Your task to perform on an android device: Is it going to rain today? Image 0: 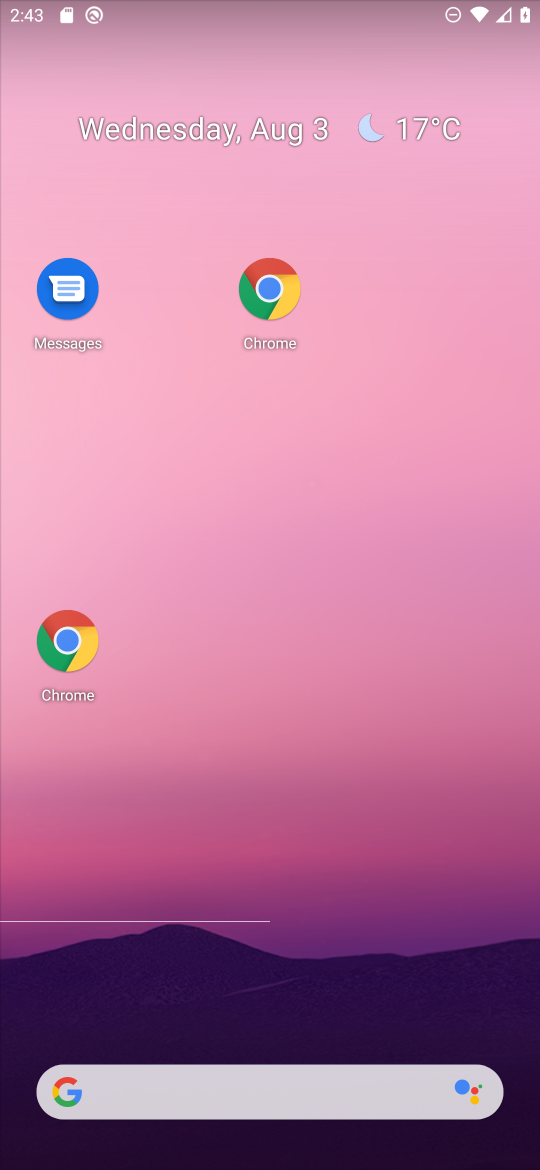
Step 0: drag from (343, 979) to (233, 428)
Your task to perform on an android device: Is it going to rain today? Image 1: 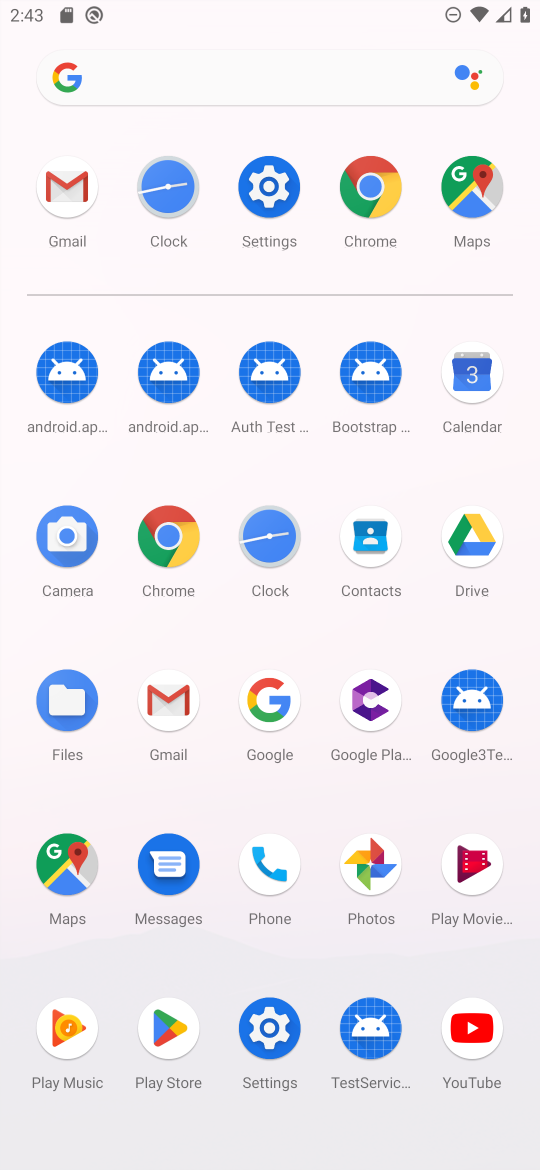
Step 1: click (134, 72)
Your task to perform on an android device: Is it going to rain today? Image 2: 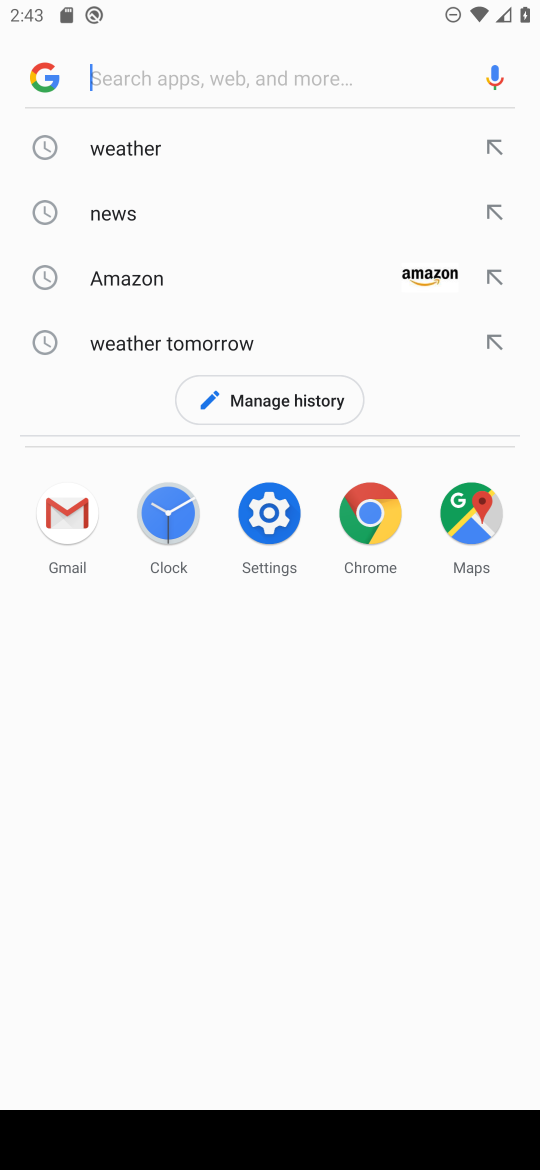
Step 2: click (172, 172)
Your task to perform on an android device: Is it going to rain today? Image 3: 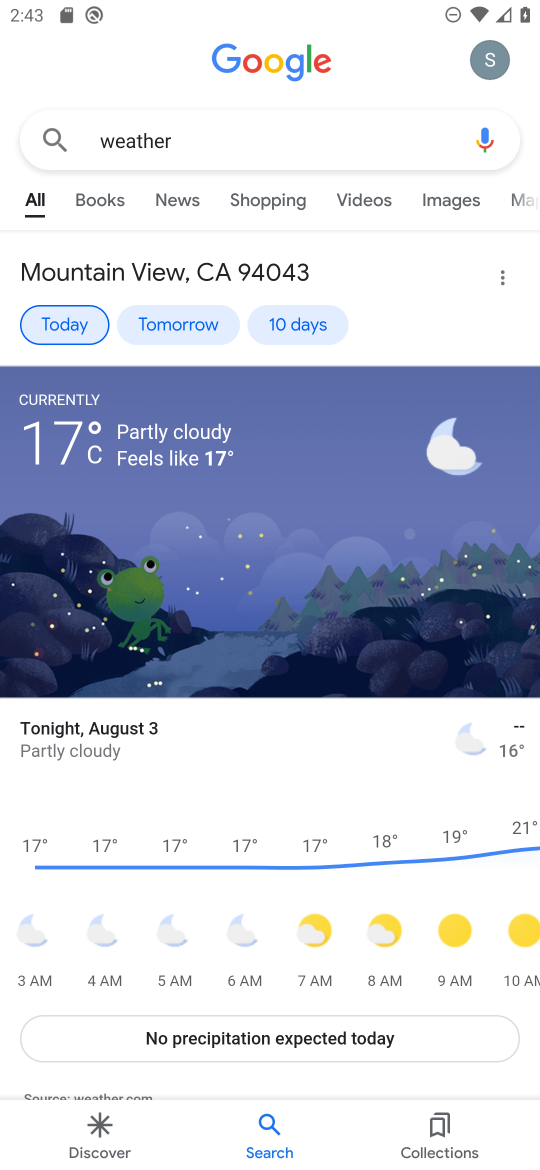
Step 3: task complete